Your task to perform on an android device: Open Yahoo.com Image 0: 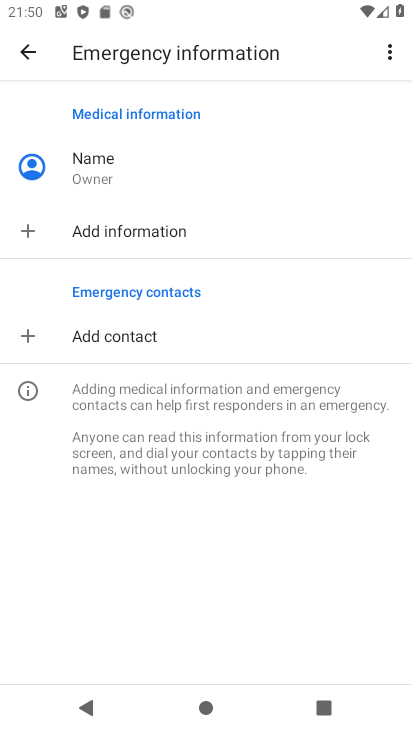
Step 0: press home button
Your task to perform on an android device: Open Yahoo.com Image 1: 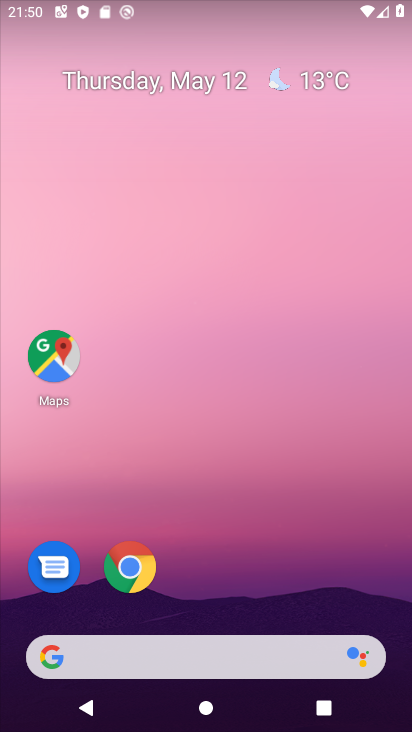
Step 1: click (126, 564)
Your task to perform on an android device: Open Yahoo.com Image 2: 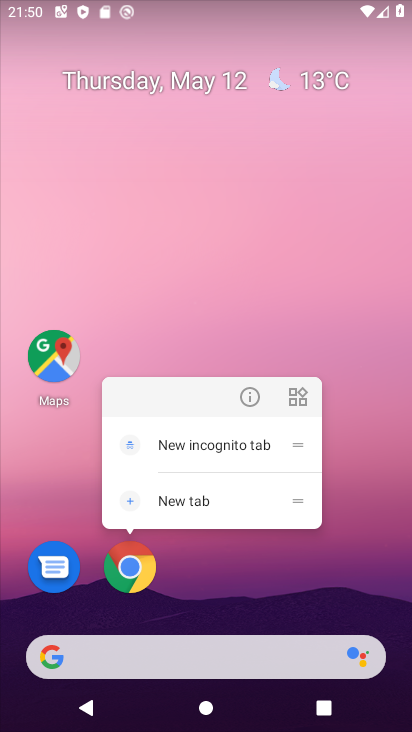
Step 2: click (126, 564)
Your task to perform on an android device: Open Yahoo.com Image 3: 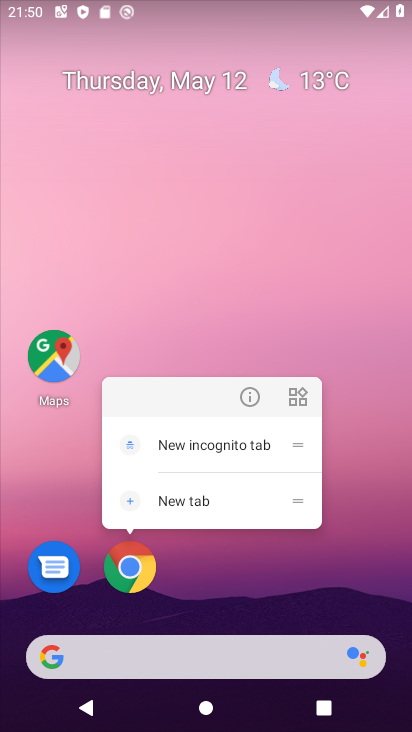
Step 3: click (131, 559)
Your task to perform on an android device: Open Yahoo.com Image 4: 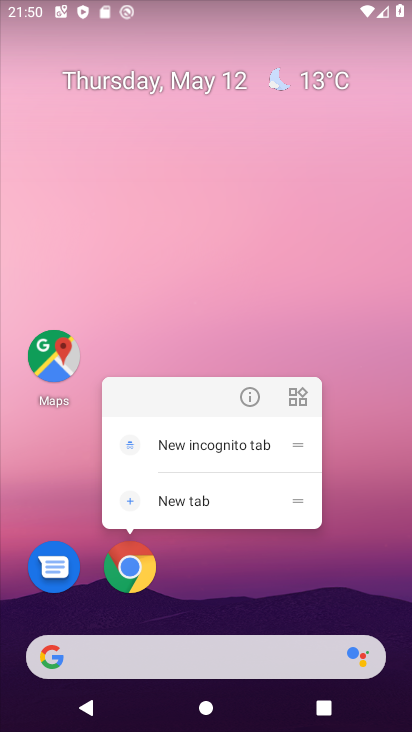
Step 4: click (206, 591)
Your task to perform on an android device: Open Yahoo.com Image 5: 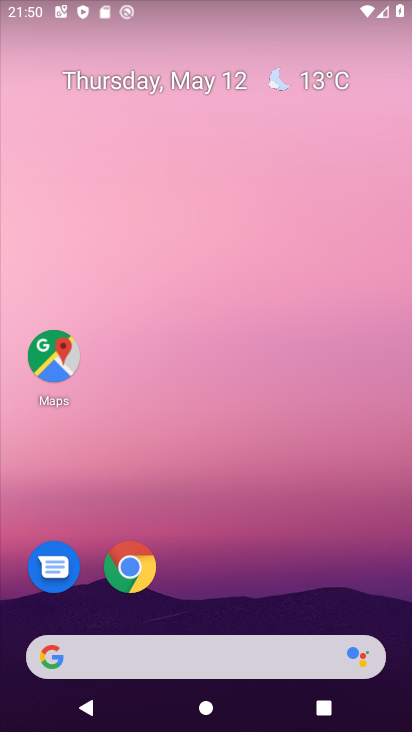
Step 5: drag from (254, 616) to (263, 63)
Your task to perform on an android device: Open Yahoo.com Image 6: 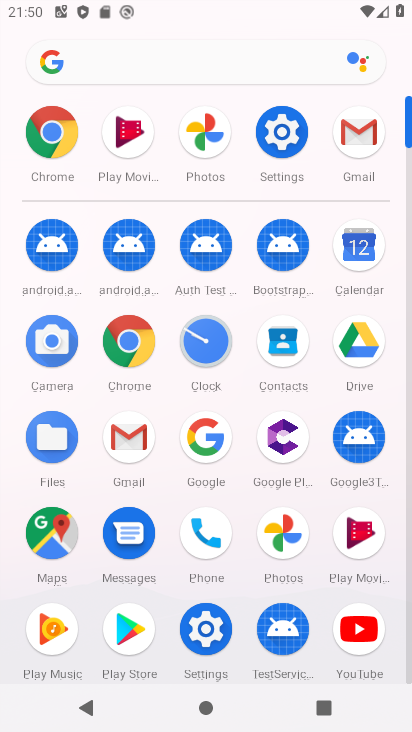
Step 6: click (124, 335)
Your task to perform on an android device: Open Yahoo.com Image 7: 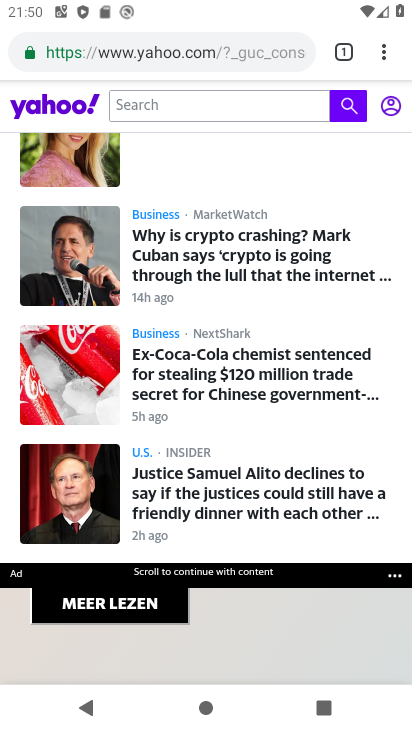
Step 7: task complete